Your task to perform on an android device: search for starred emails in the gmail app Image 0: 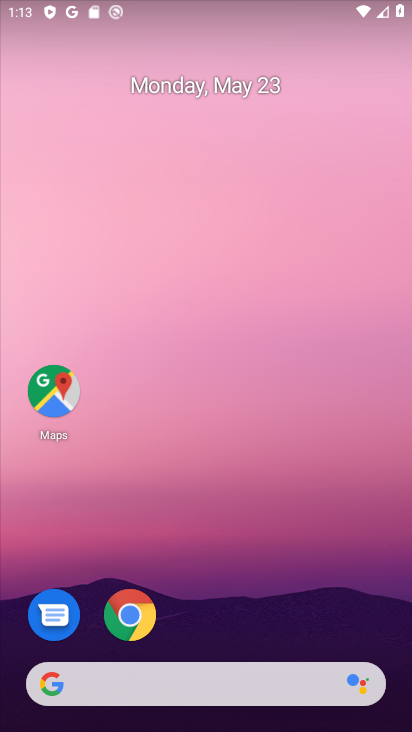
Step 0: drag from (214, 659) to (378, 129)
Your task to perform on an android device: search for starred emails in the gmail app Image 1: 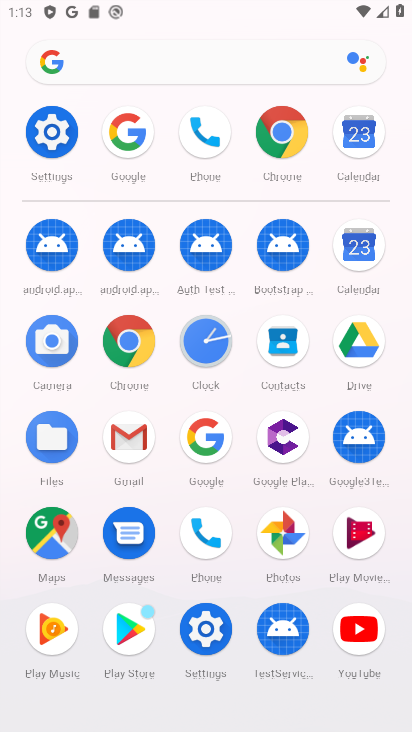
Step 1: click (130, 416)
Your task to perform on an android device: search for starred emails in the gmail app Image 2: 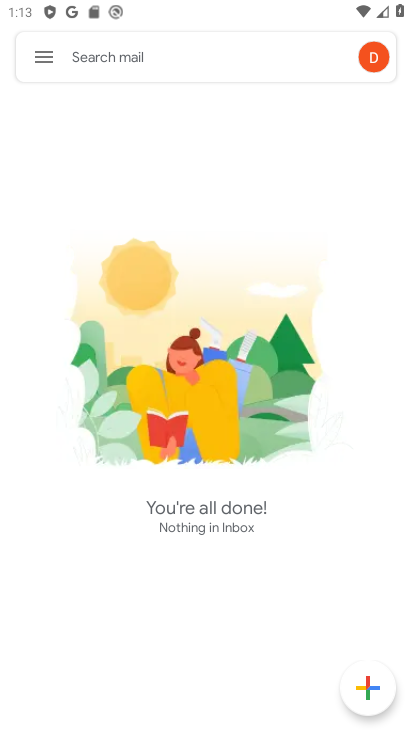
Step 2: click (46, 54)
Your task to perform on an android device: search for starred emails in the gmail app Image 3: 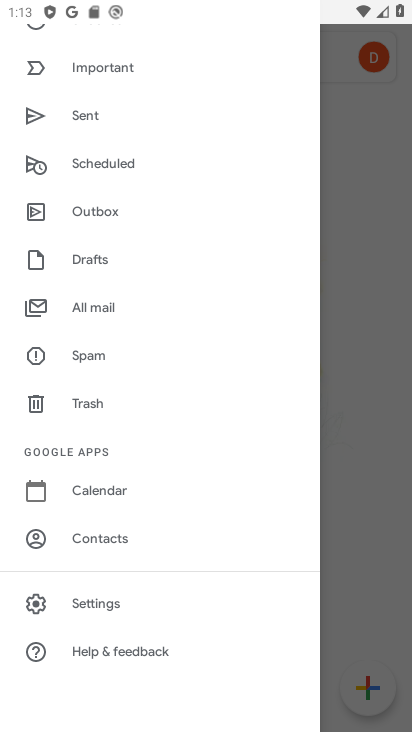
Step 3: drag from (124, 122) to (127, 426)
Your task to perform on an android device: search for starred emails in the gmail app Image 4: 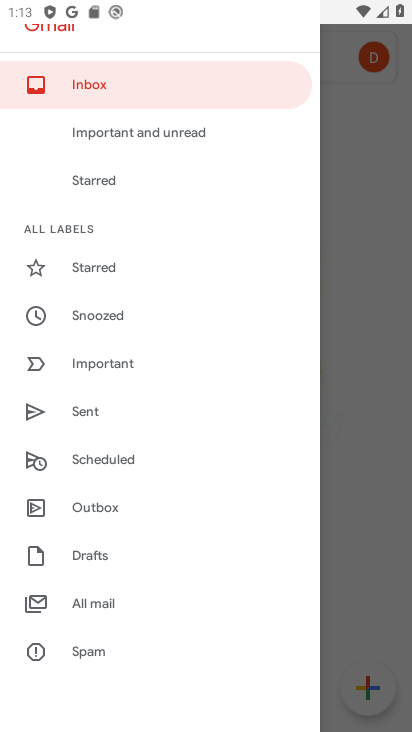
Step 4: click (84, 252)
Your task to perform on an android device: search for starred emails in the gmail app Image 5: 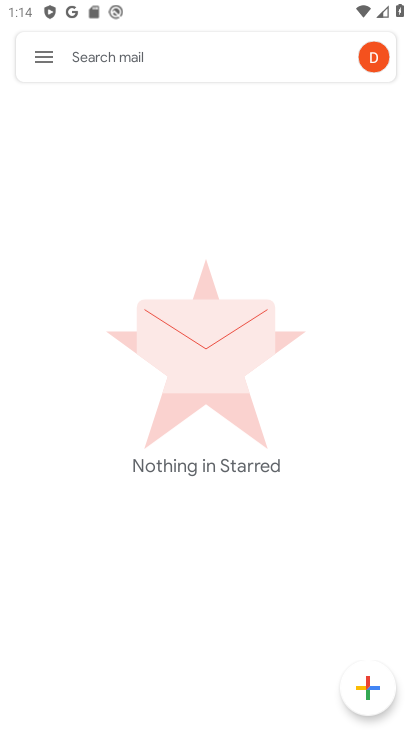
Step 5: task complete